Your task to perform on an android device: Go to Wikipedia Image 0: 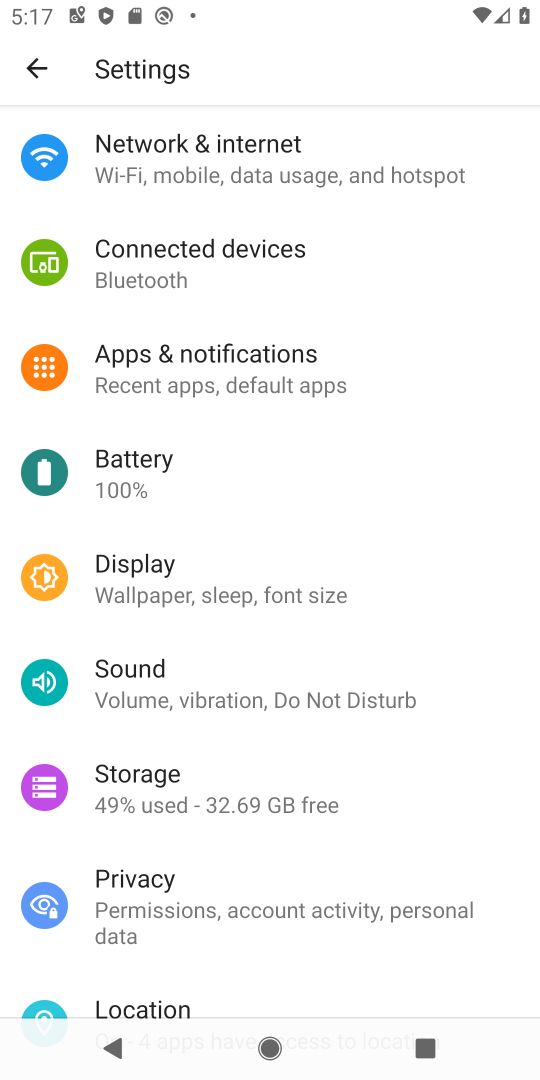
Step 0: press home button
Your task to perform on an android device: Go to Wikipedia Image 1: 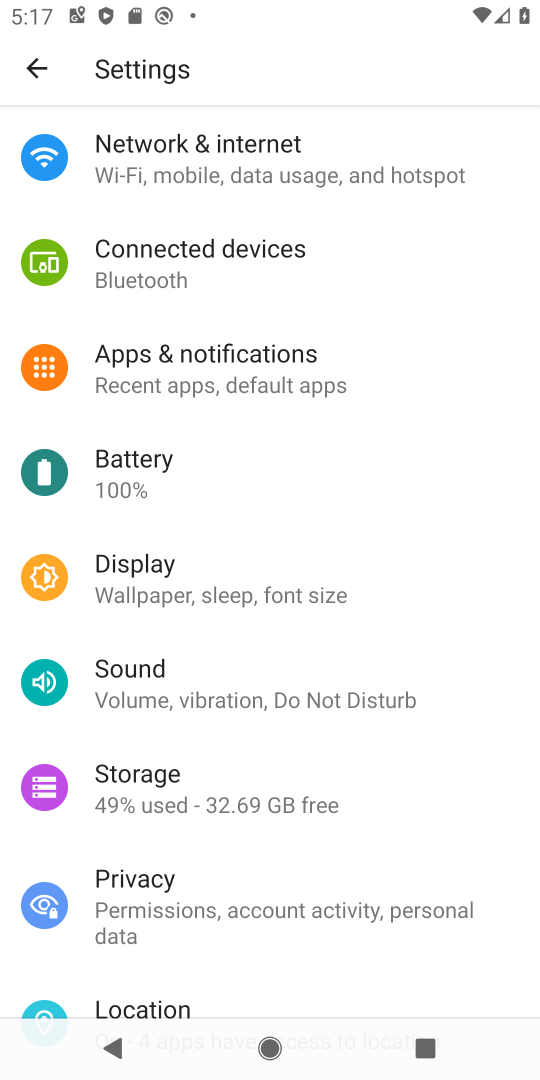
Step 1: press home button
Your task to perform on an android device: Go to Wikipedia Image 2: 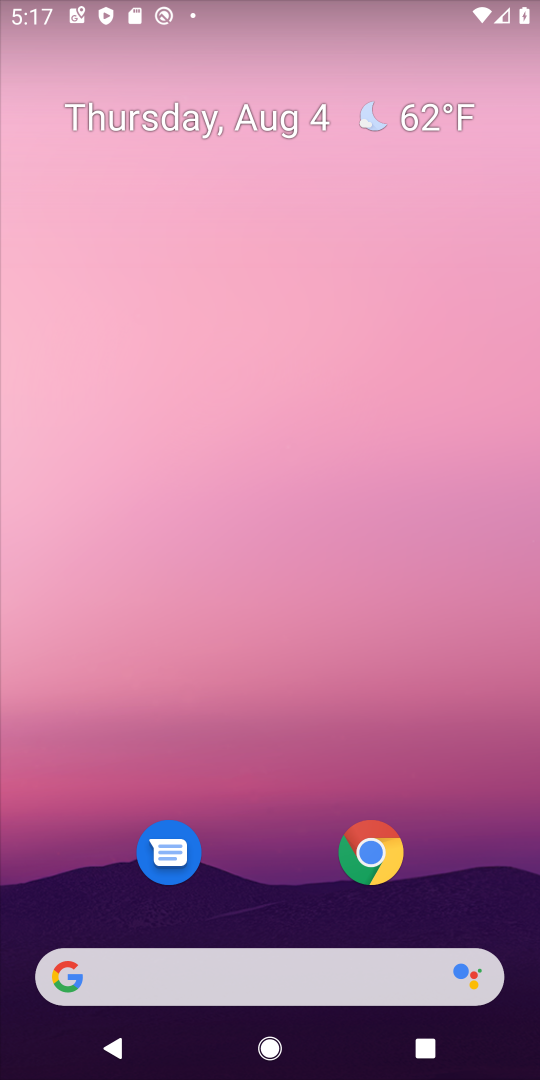
Step 2: click (373, 858)
Your task to perform on an android device: Go to Wikipedia Image 3: 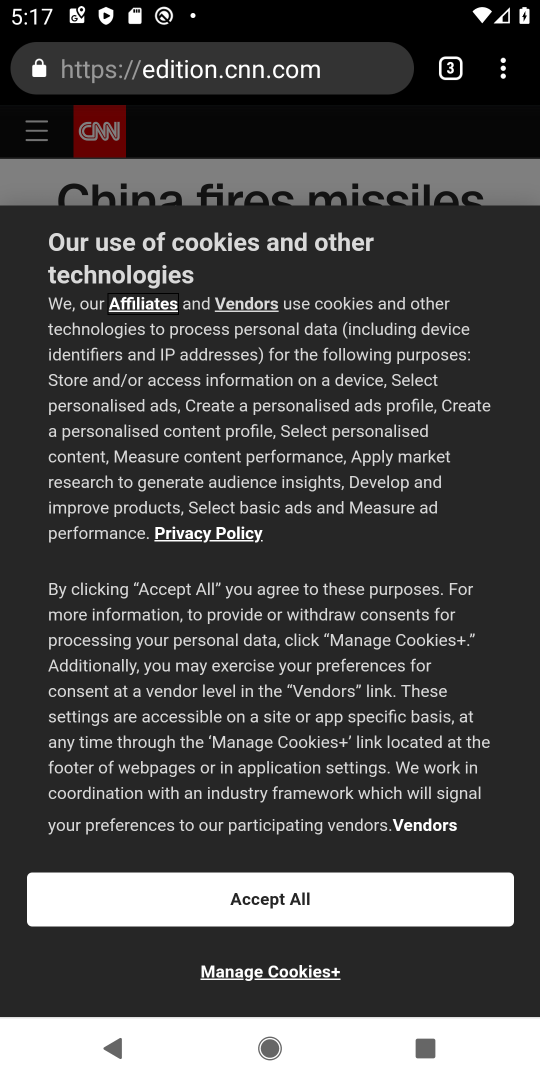
Step 3: click (507, 81)
Your task to perform on an android device: Go to Wikipedia Image 4: 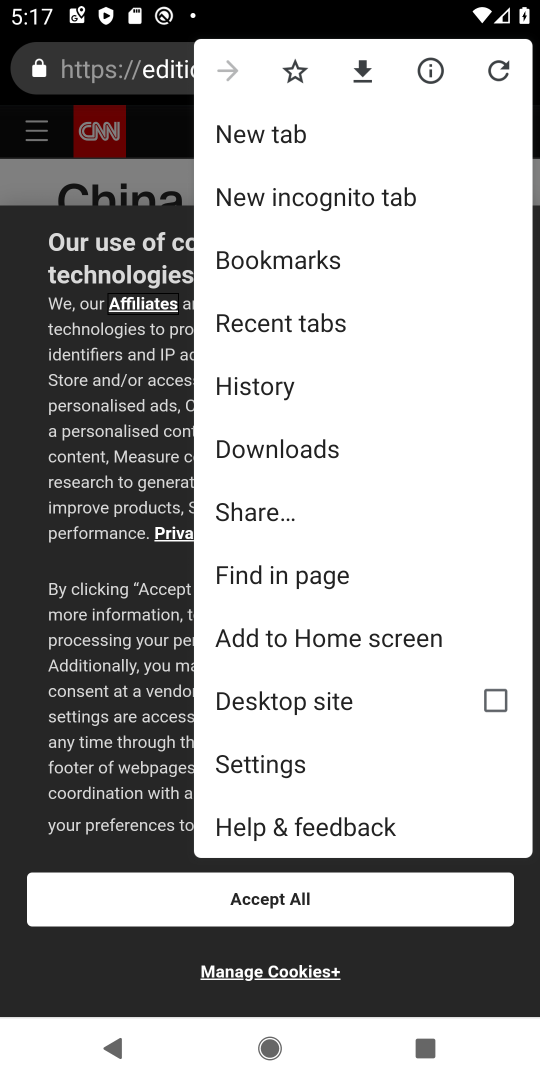
Step 4: click (276, 136)
Your task to perform on an android device: Go to Wikipedia Image 5: 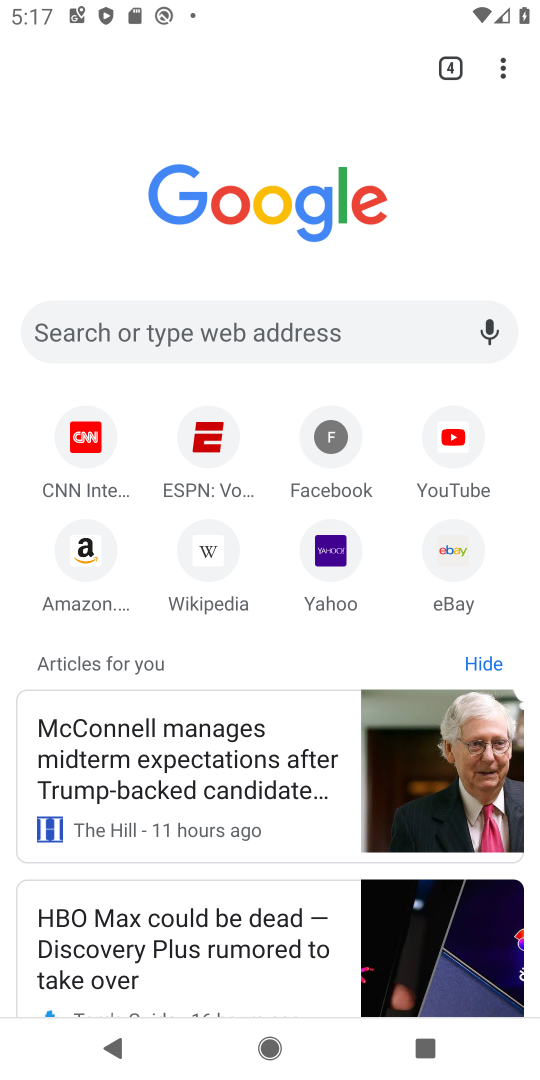
Step 5: click (212, 553)
Your task to perform on an android device: Go to Wikipedia Image 6: 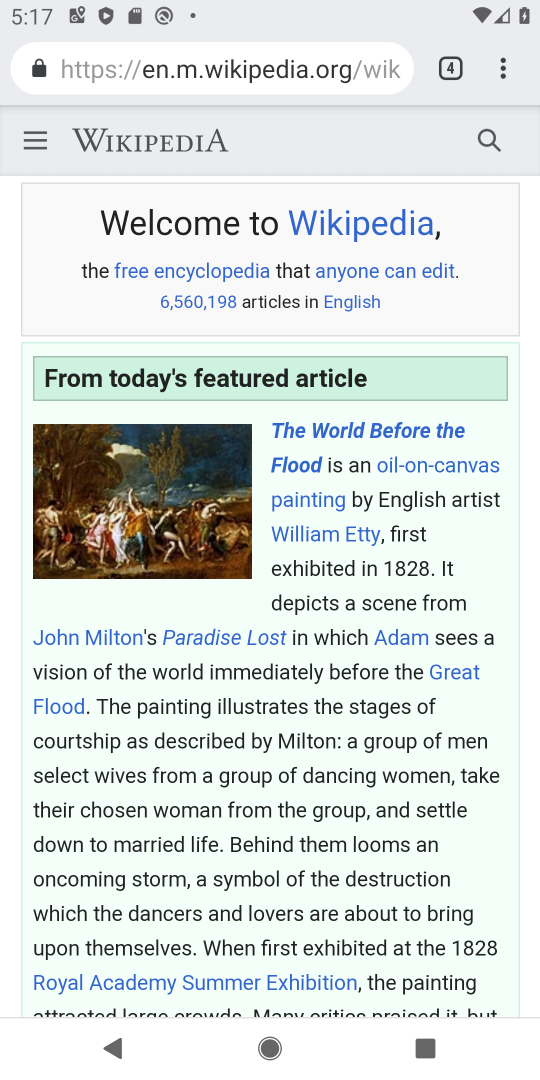
Step 6: task complete